Your task to perform on an android device: toggle wifi Image 0: 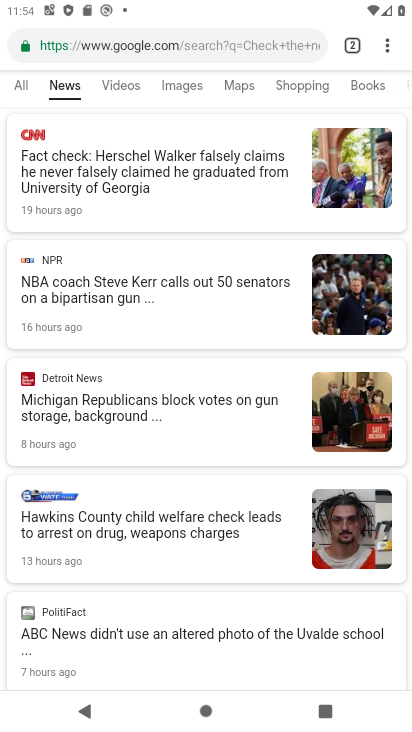
Step 0: press home button
Your task to perform on an android device: toggle wifi Image 1: 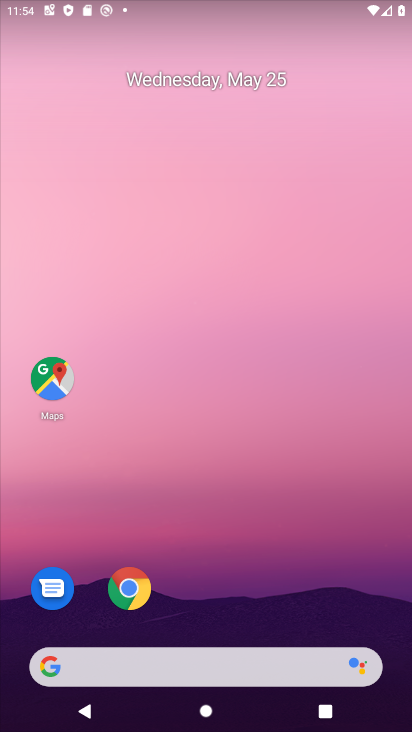
Step 1: drag from (276, 557) to (230, 30)
Your task to perform on an android device: toggle wifi Image 2: 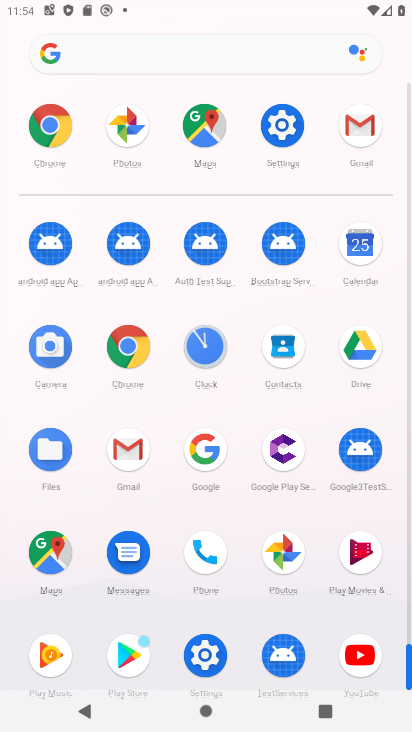
Step 2: click (204, 651)
Your task to perform on an android device: toggle wifi Image 3: 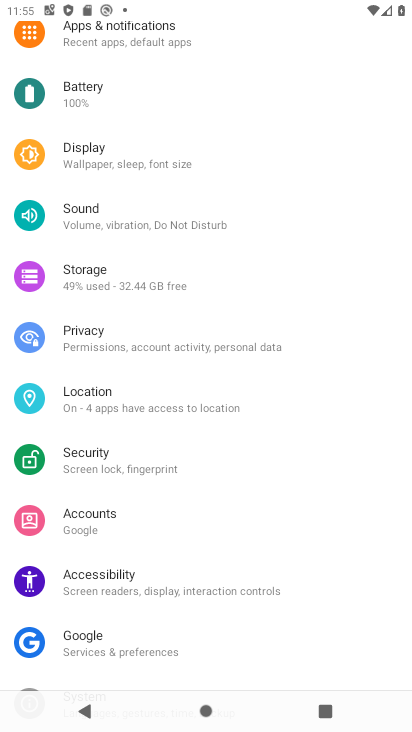
Step 3: drag from (238, 162) to (208, 602)
Your task to perform on an android device: toggle wifi Image 4: 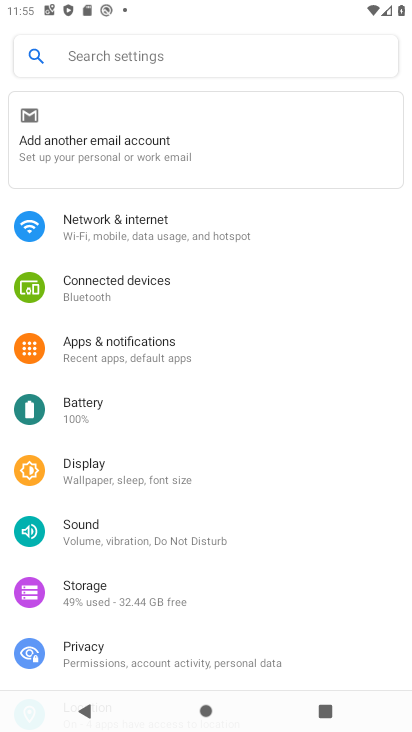
Step 4: click (183, 242)
Your task to perform on an android device: toggle wifi Image 5: 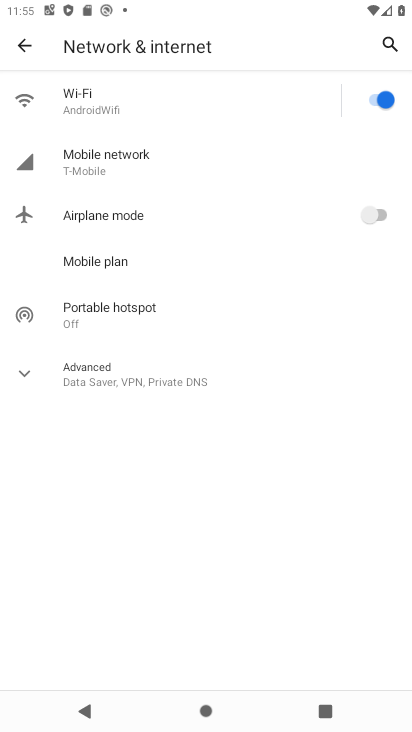
Step 5: click (361, 93)
Your task to perform on an android device: toggle wifi Image 6: 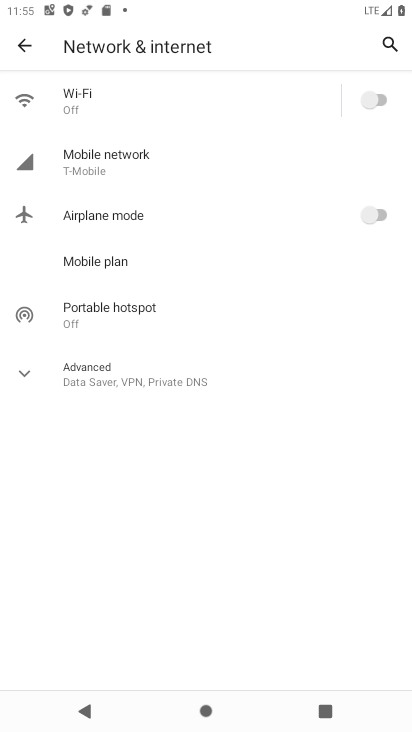
Step 6: task complete